Your task to perform on an android device: Open Google Chrome and click the shortcut for Amazon.com Image 0: 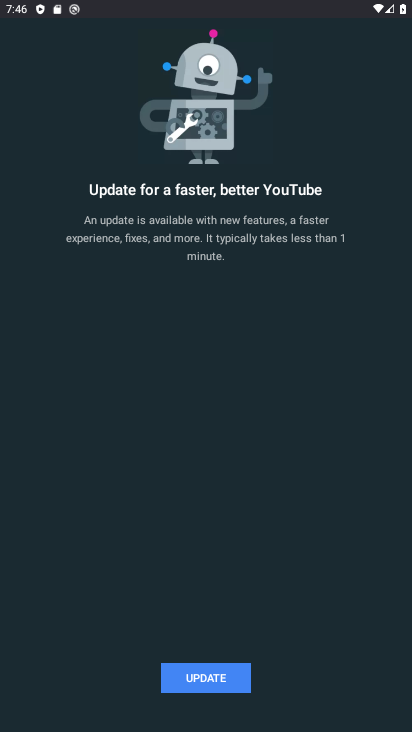
Step 0: press home button
Your task to perform on an android device: Open Google Chrome and click the shortcut for Amazon.com Image 1: 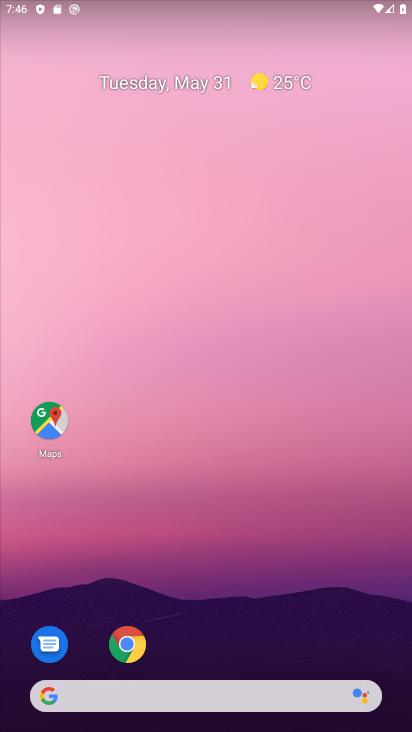
Step 1: drag from (224, 715) to (325, 172)
Your task to perform on an android device: Open Google Chrome and click the shortcut for Amazon.com Image 2: 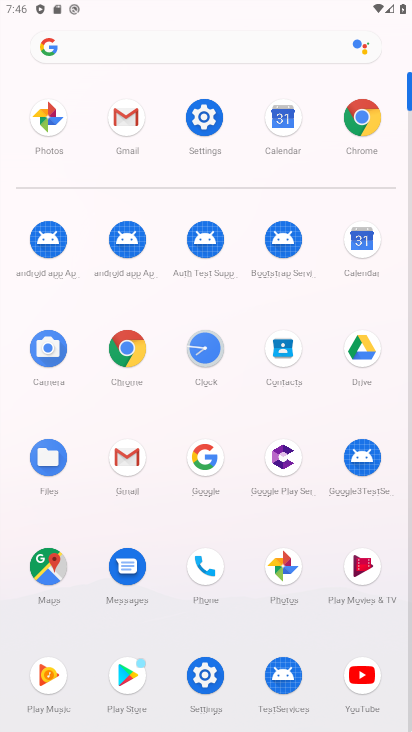
Step 2: click (133, 353)
Your task to perform on an android device: Open Google Chrome and click the shortcut for Amazon.com Image 3: 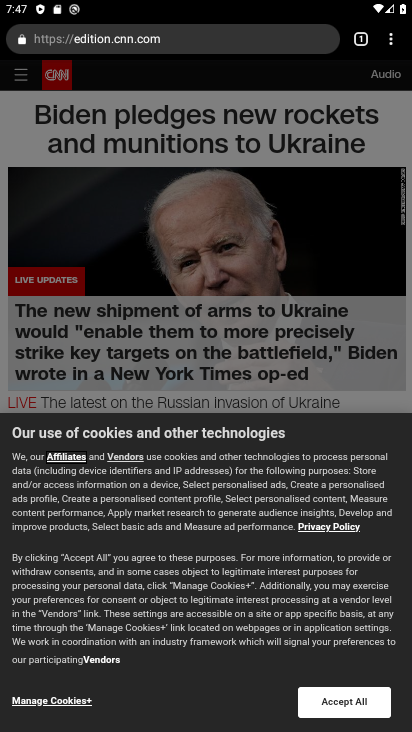
Step 3: click (390, 46)
Your task to perform on an android device: Open Google Chrome and click the shortcut for Amazon.com Image 4: 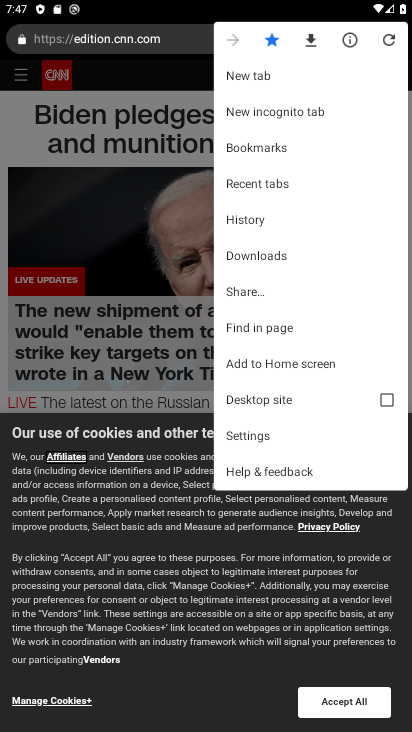
Step 4: click (259, 70)
Your task to perform on an android device: Open Google Chrome and click the shortcut for Amazon.com Image 5: 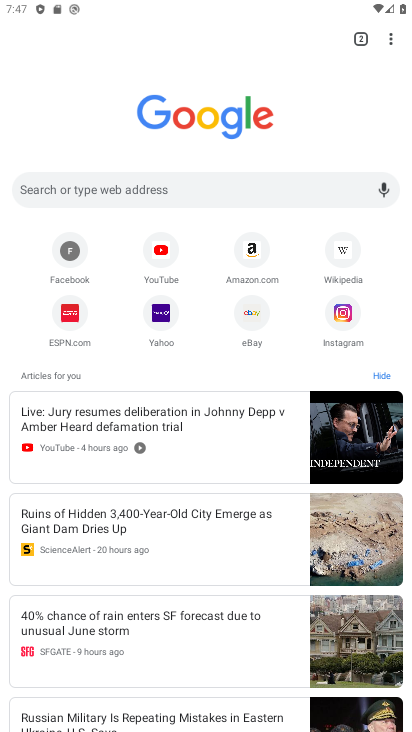
Step 5: click (255, 251)
Your task to perform on an android device: Open Google Chrome and click the shortcut for Amazon.com Image 6: 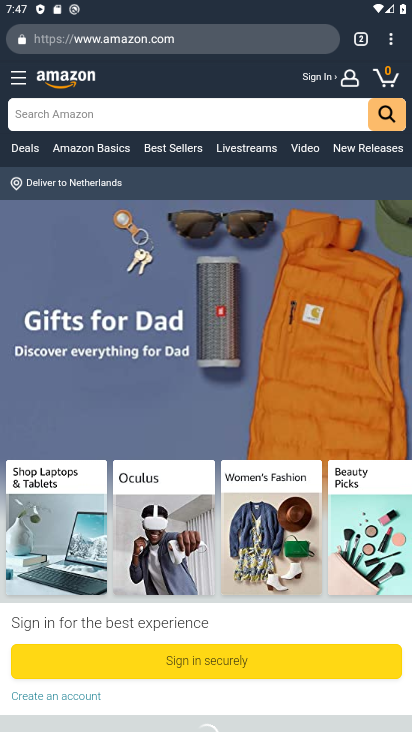
Step 6: click (391, 38)
Your task to perform on an android device: Open Google Chrome and click the shortcut for Amazon.com Image 7: 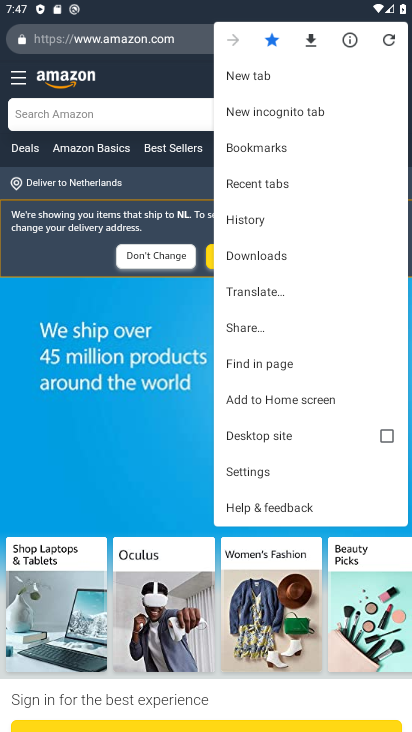
Step 7: click (257, 397)
Your task to perform on an android device: Open Google Chrome and click the shortcut for Amazon.com Image 8: 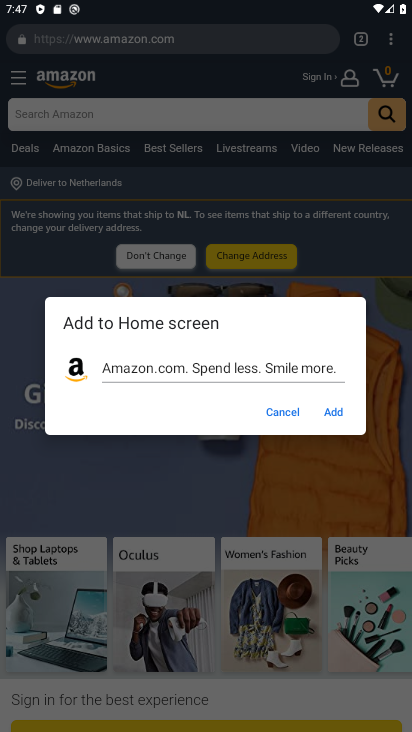
Step 8: click (337, 421)
Your task to perform on an android device: Open Google Chrome and click the shortcut for Amazon.com Image 9: 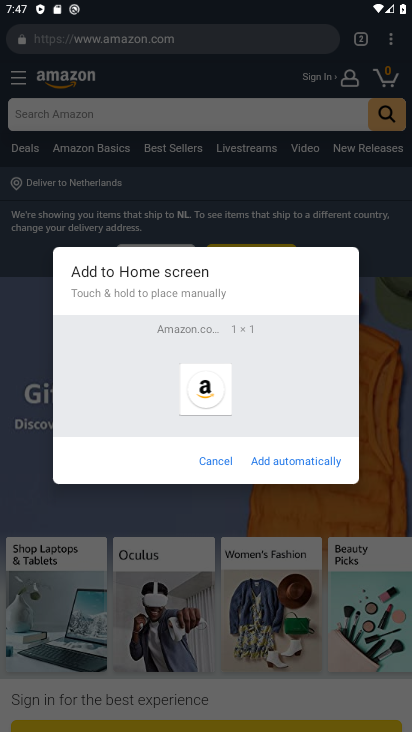
Step 9: task complete